Your task to perform on an android device: open app "NewsBreak: Local News & Alerts" (install if not already installed) and go to login screen Image 0: 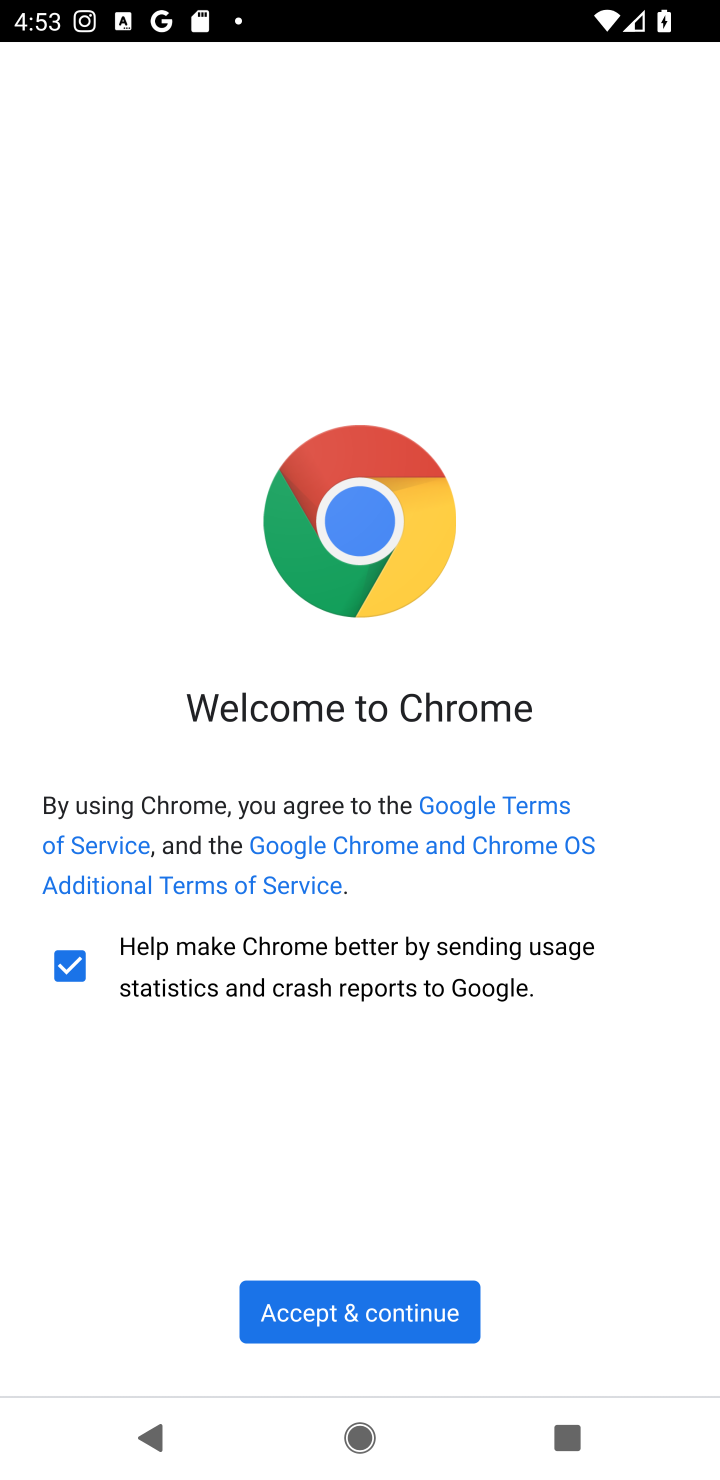
Step 0: press home button
Your task to perform on an android device: open app "NewsBreak: Local News & Alerts" (install if not already installed) and go to login screen Image 1: 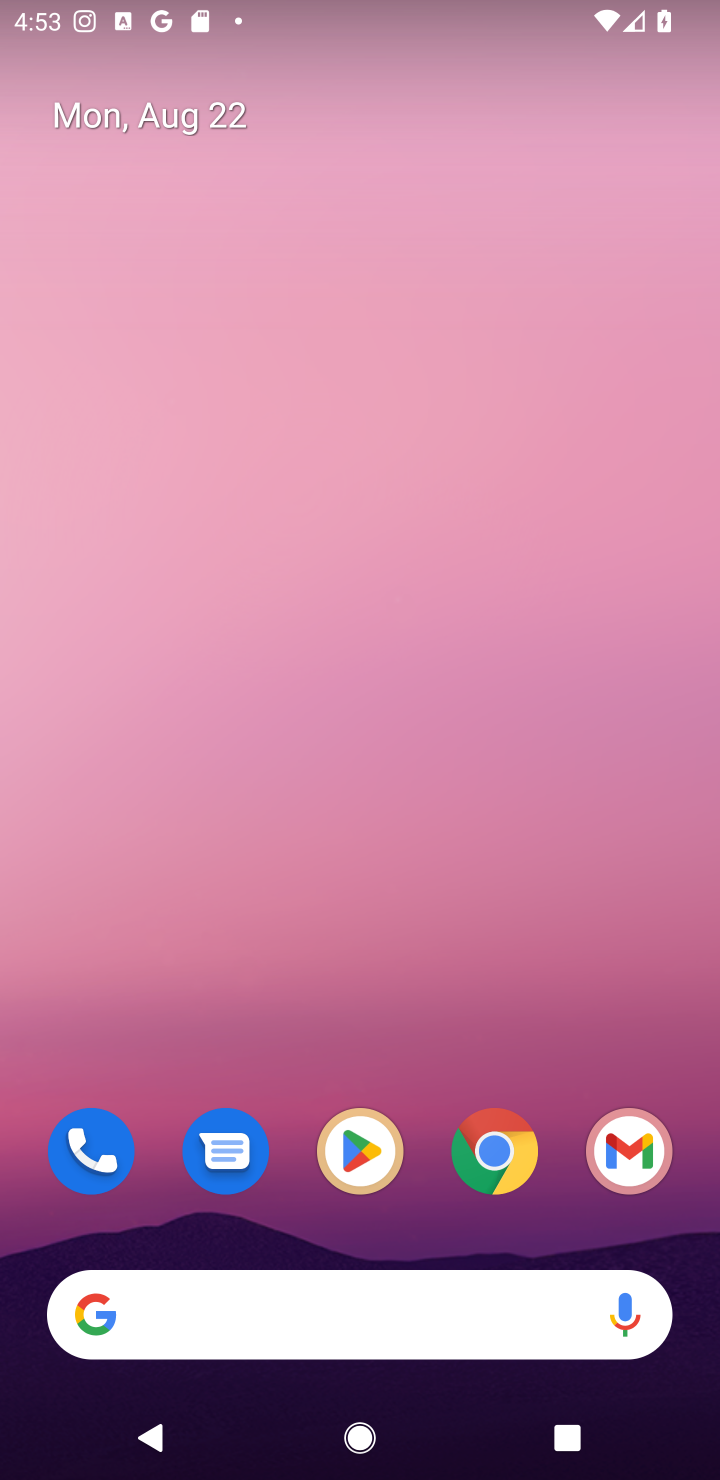
Step 1: click (350, 1158)
Your task to perform on an android device: open app "NewsBreak: Local News & Alerts" (install if not already installed) and go to login screen Image 2: 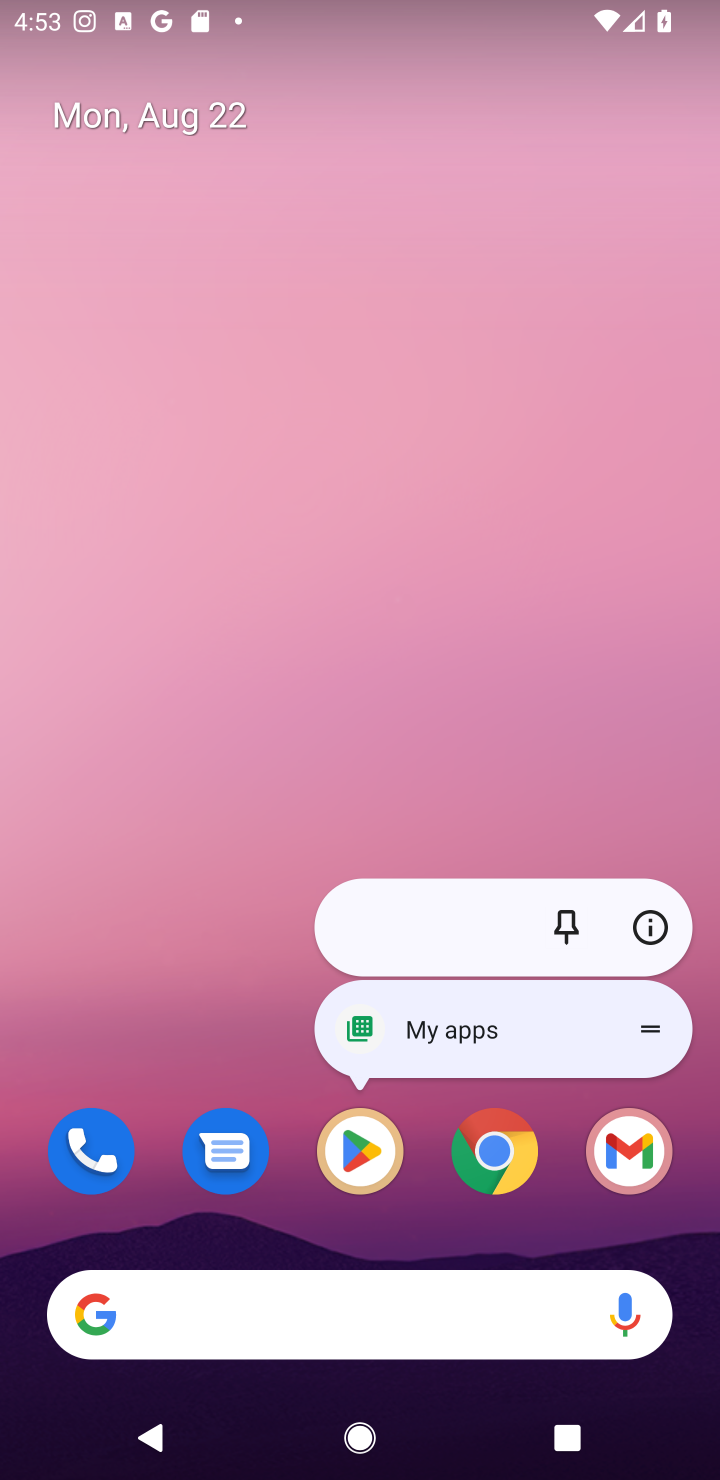
Step 2: click (350, 1163)
Your task to perform on an android device: open app "NewsBreak: Local News & Alerts" (install if not already installed) and go to login screen Image 3: 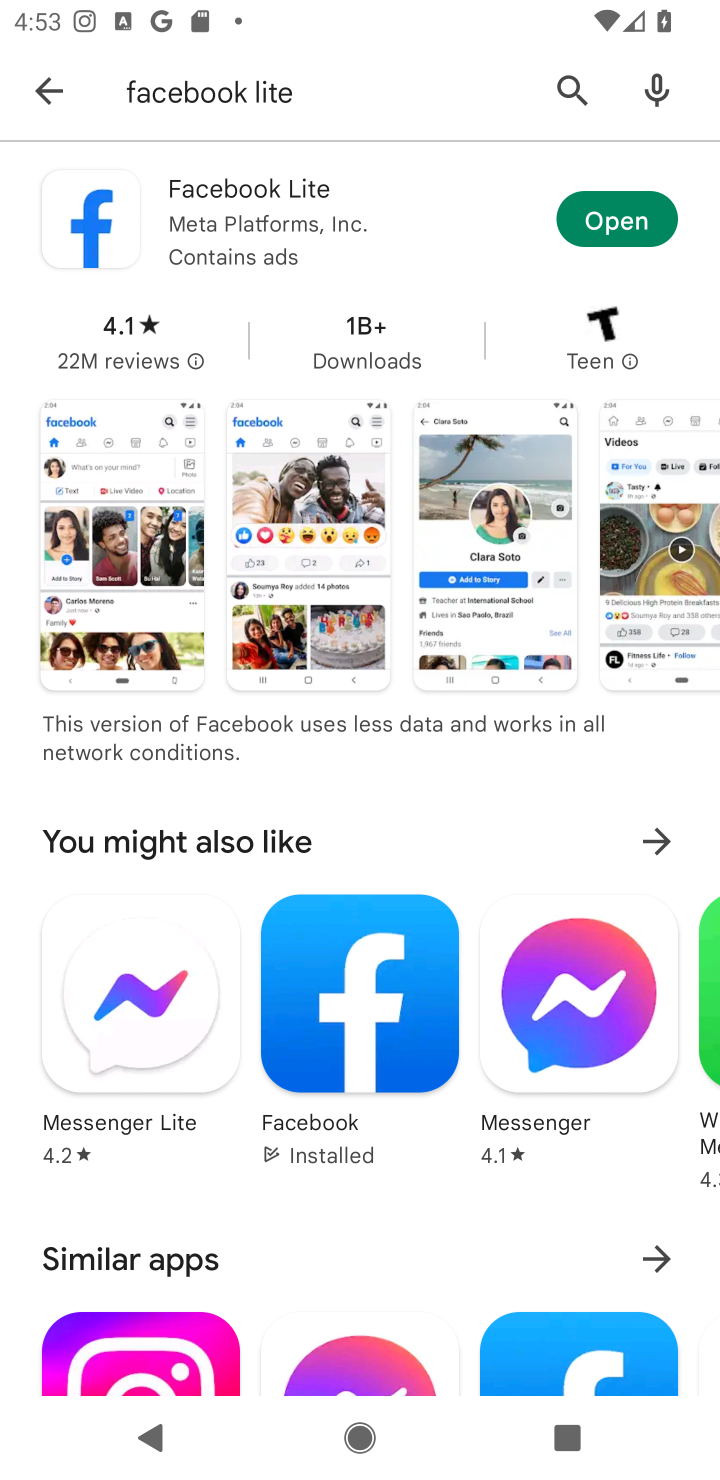
Step 3: click (552, 75)
Your task to perform on an android device: open app "NewsBreak: Local News & Alerts" (install if not already installed) and go to login screen Image 4: 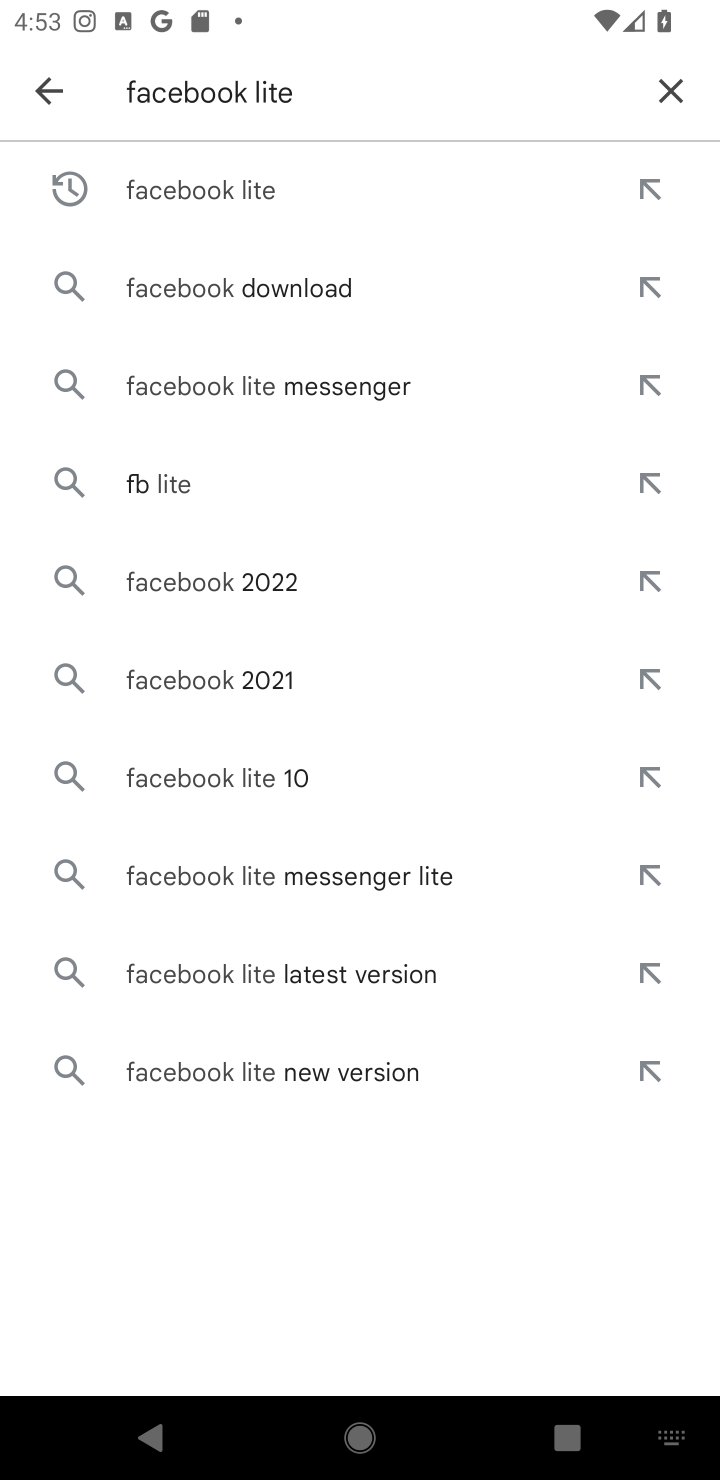
Step 4: click (660, 81)
Your task to perform on an android device: open app "NewsBreak: Local News & Alerts" (install if not already installed) and go to login screen Image 5: 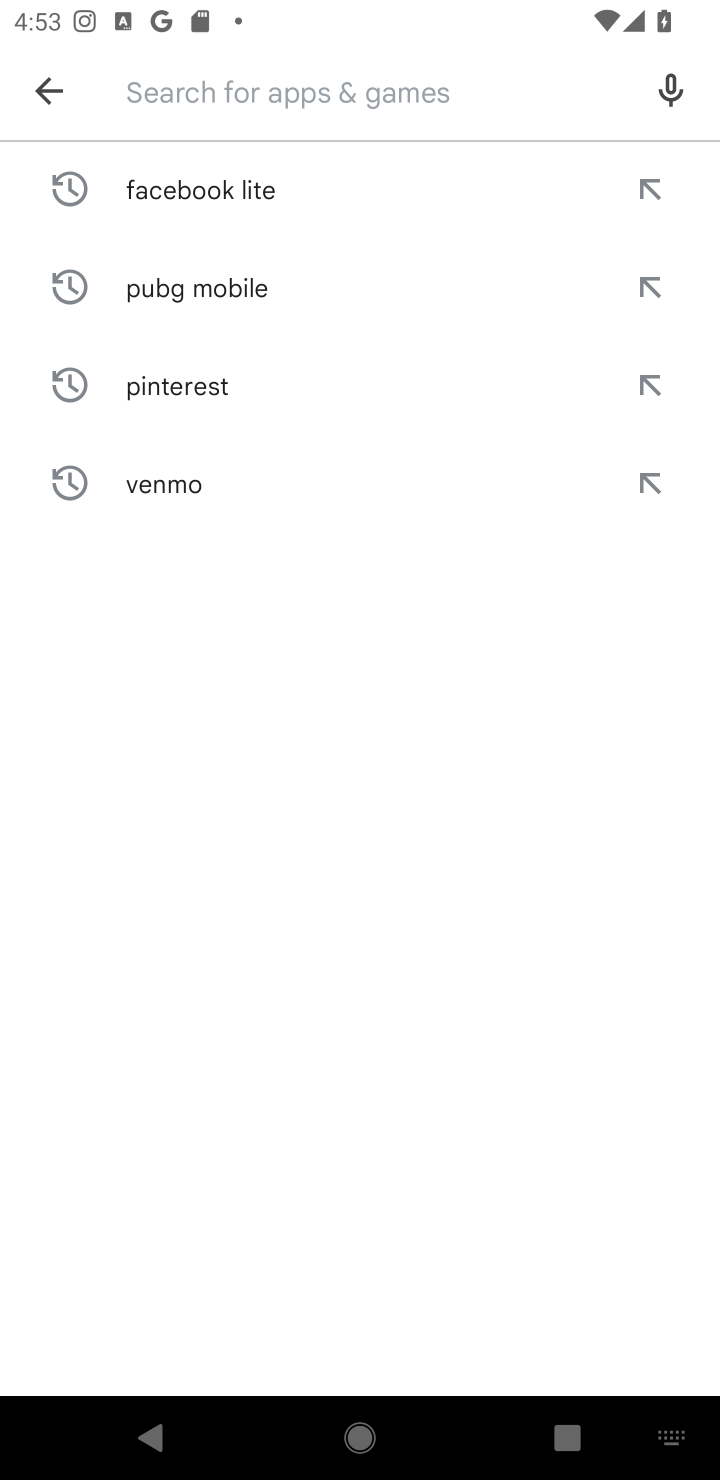
Step 5: type "NewsBreak: Local News & Alerts"
Your task to perform on an android device: open app "NewsBreak: Local News & Alerts" (install if not already installed) and go to login screen Image 6: 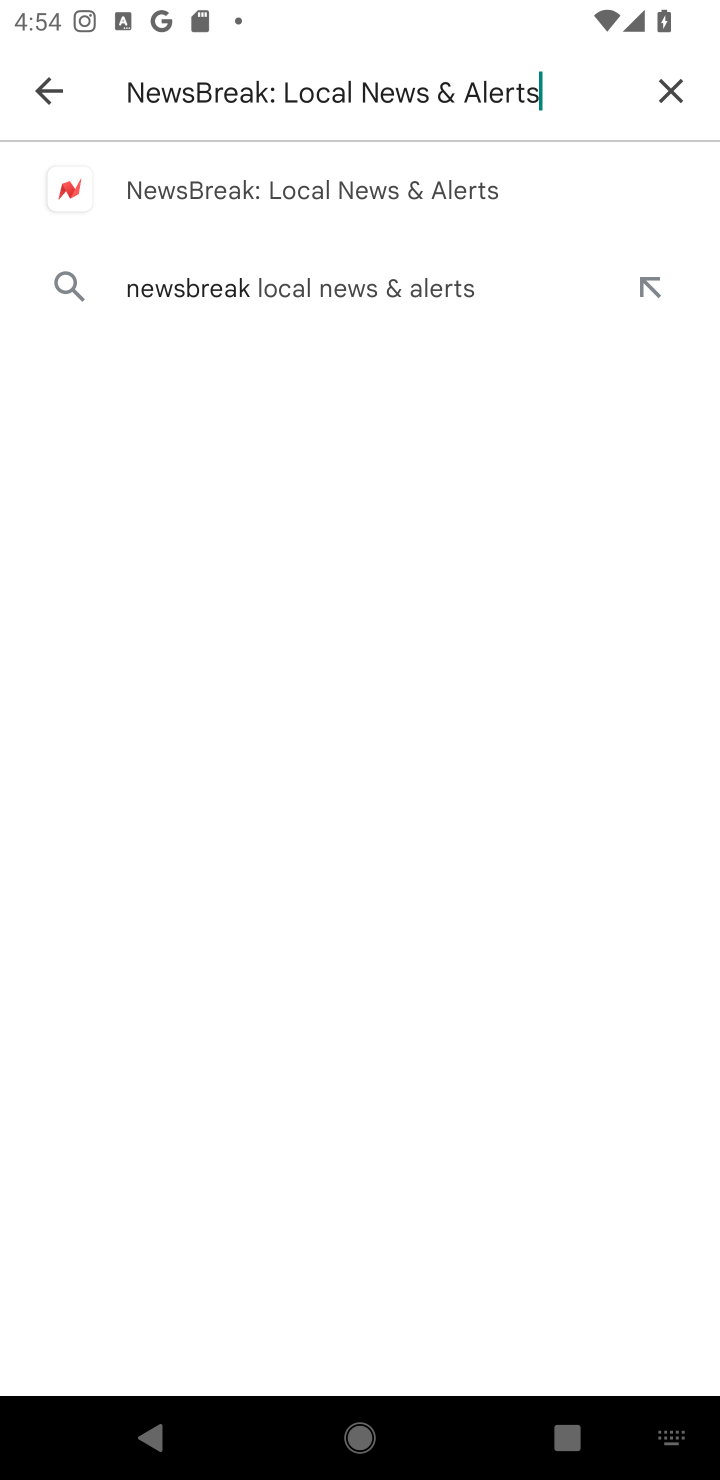
Step 6: click (279, 189)
Your task to perform on an android device: open app "NewsBreak: Local News & Alerts" (install if not already installed) and go to login screen Image 7: 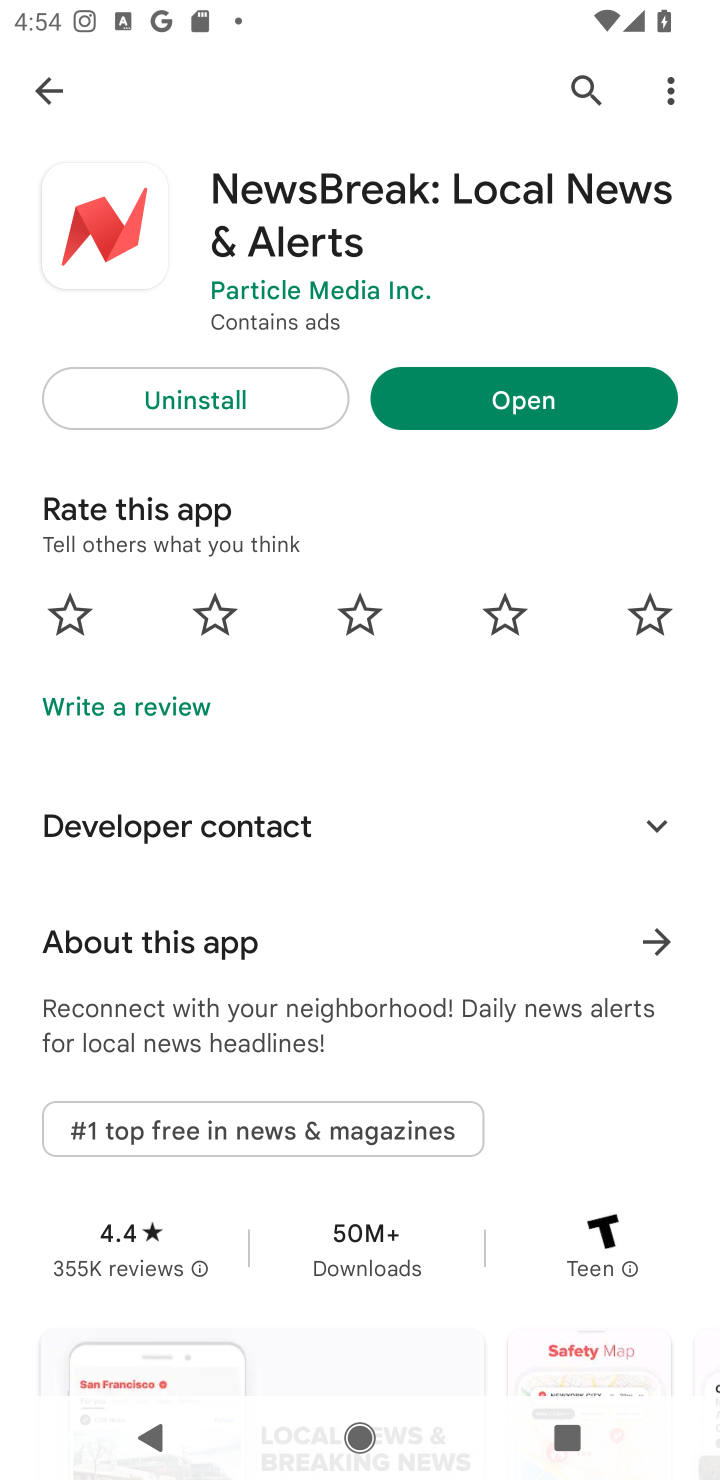
Step 7: click (550, 402)
Your task to perform on an android device: open app "NewsBreak: Local News & Alerts" (install if not already installed) and go to login screen Image 8: 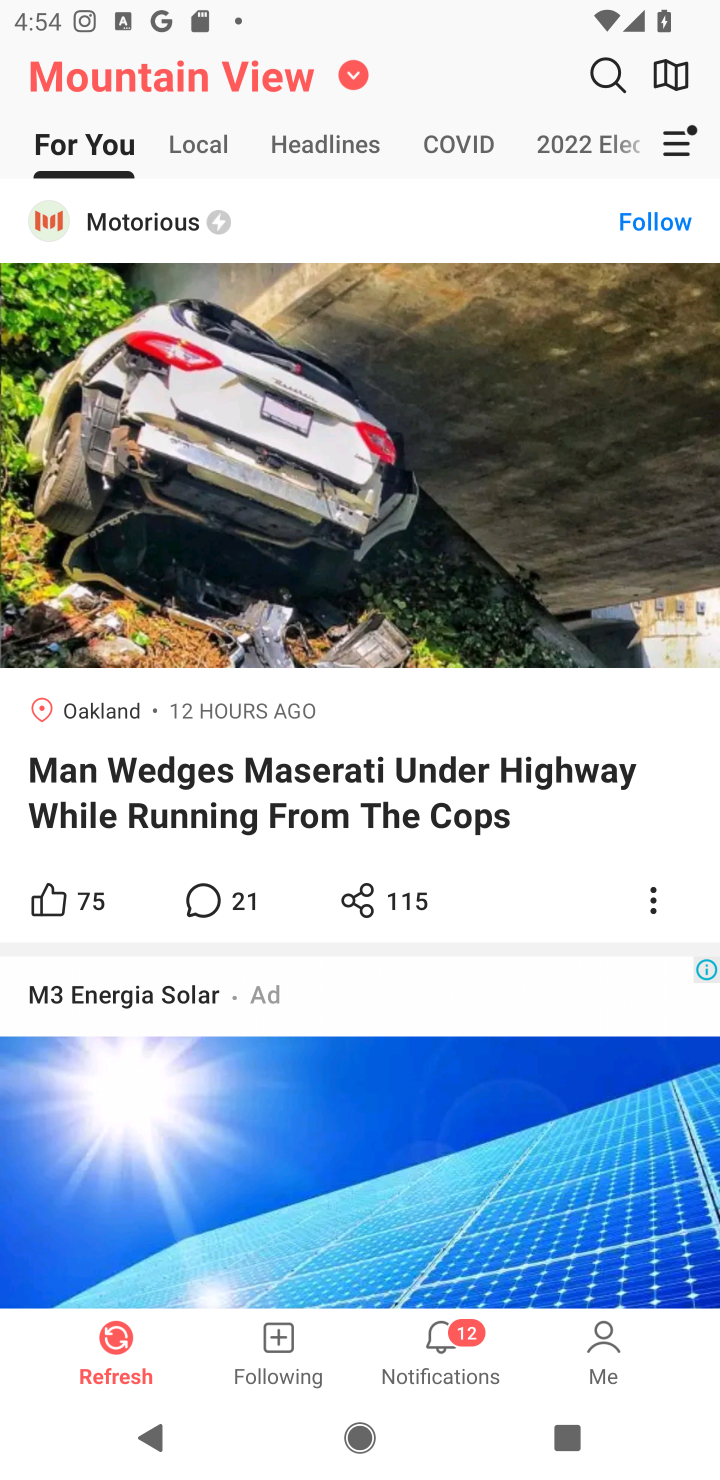
Step 8: task complete